Your task to perform on an android device: Open Android settings Image 0: 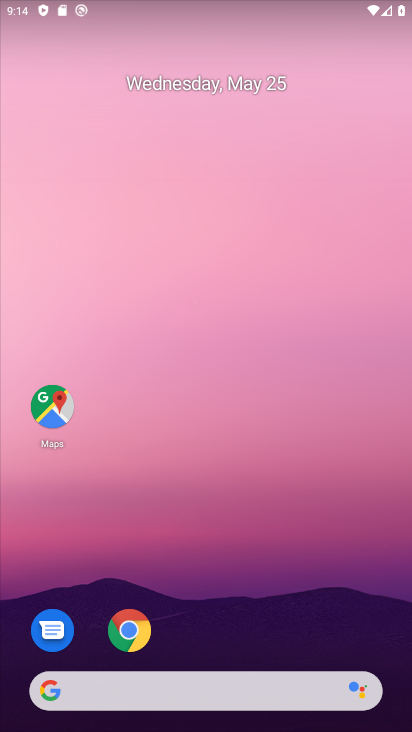
Step 0: drag from (289, 638) to (303, 86)
Your task to perform on an android device: Open Android settings Image 1: 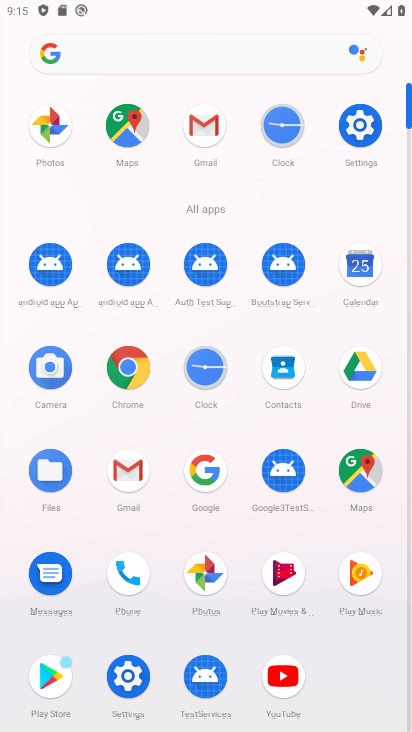
Step 1: click (348, 135)
Your task to perform on an android device: Open Android settings Image 2: 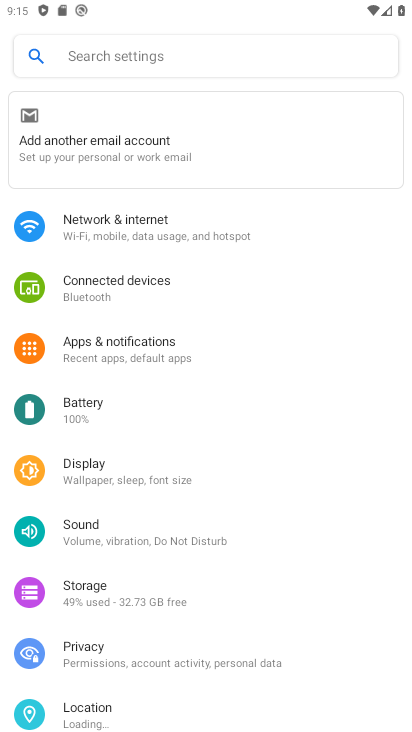
Step 2: click (335, 142)
Your task to perform on an android device: Open Android settings Image 3: 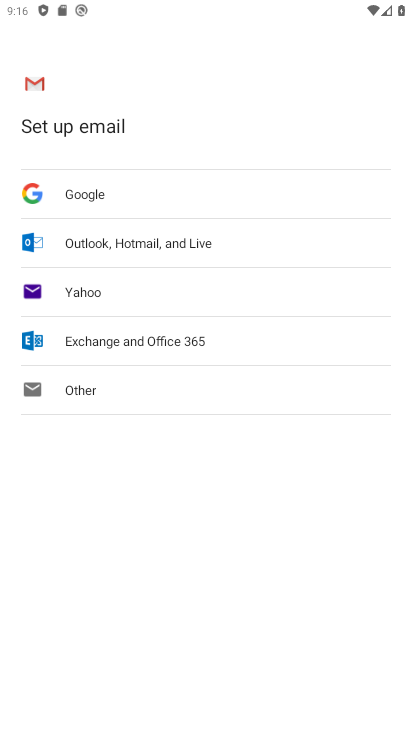
Step 3: press back button
Your task to perform on an android device: Open Android settings Image 4: 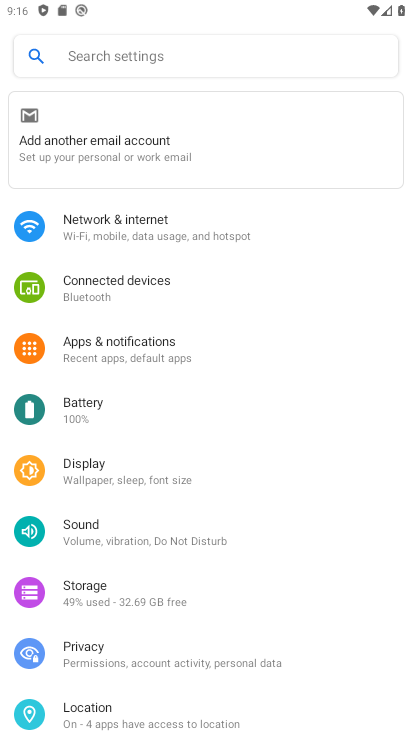
Step 4: drag from (201, 637) to (279, 105)
Your task to perform on an android device: Open Android settings Image 5: 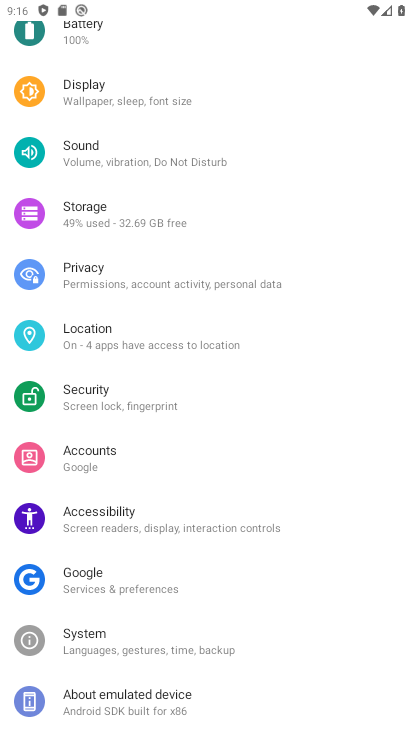
Step 5: click (113, 687)
Your task to perform on an android device: Open Android settings Image 6: 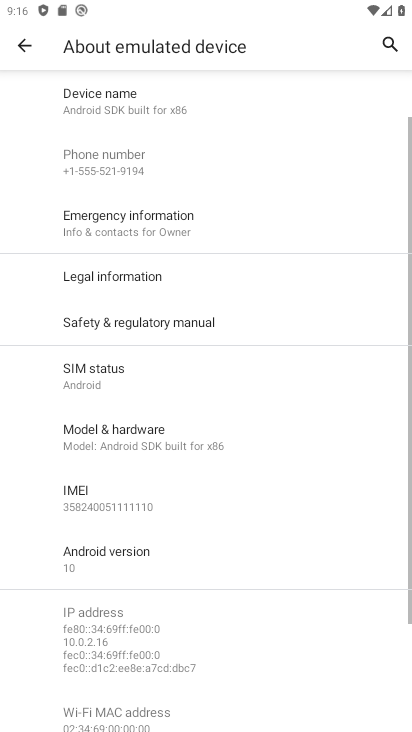
Step 6: task complete